Your task to perform on an android device: Open eBay Image 0: 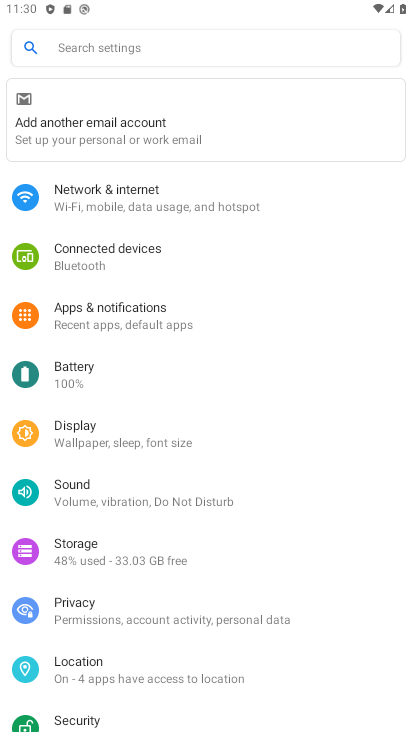
Step 0: press home button
Your task to perform on an android device: Open eBay Image 1: 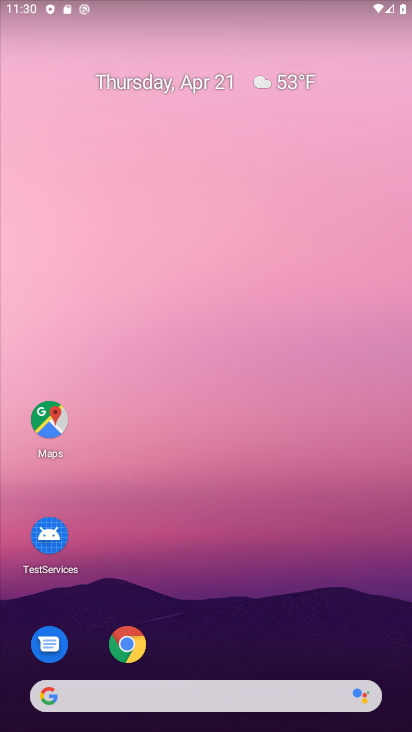
Step 1: click (128, 644)
Your task to perform on an android device: Open eBay Image 2: 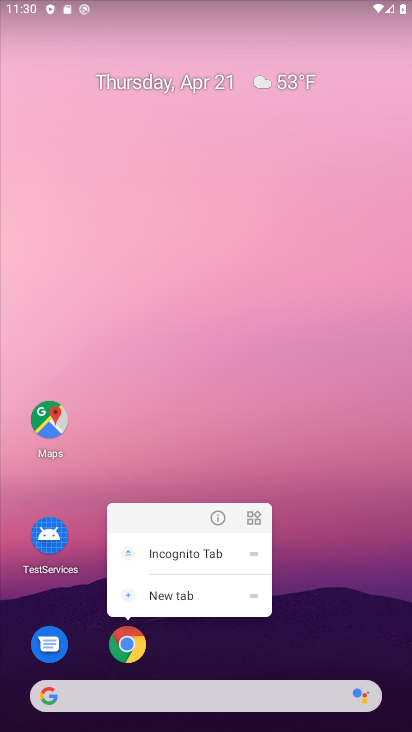
Step 2: click (292, 629)
Your task to perform on an android device: Open eBay Image 3: 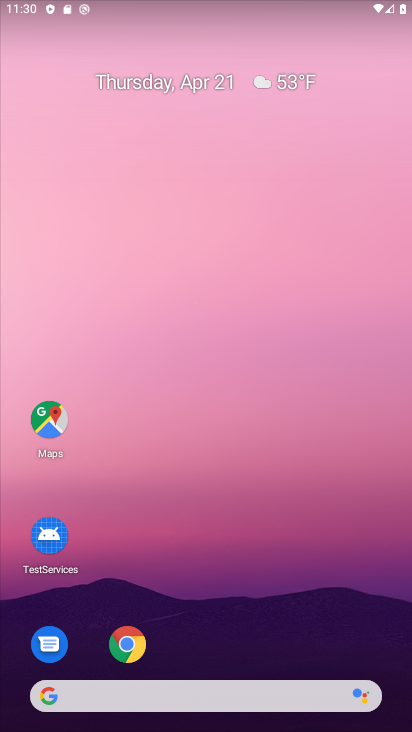
Step 3: drag from (317, 466) to (306, 122)
Your task to perform on an android device: Open eBay Image 4: 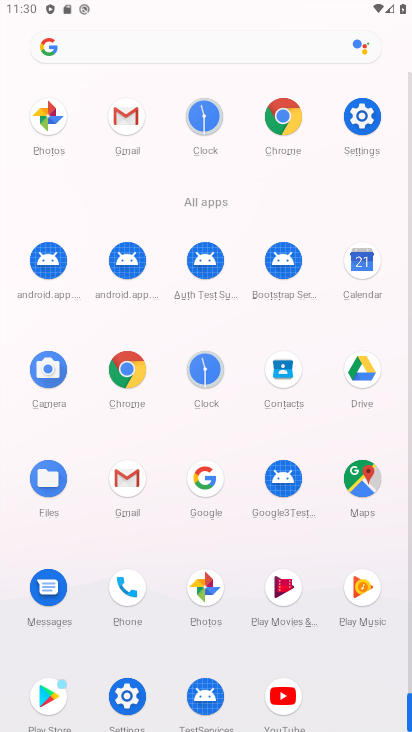
Step 4: click (287, 118)
Your task to perform on an android device: Open eBay Image 5: 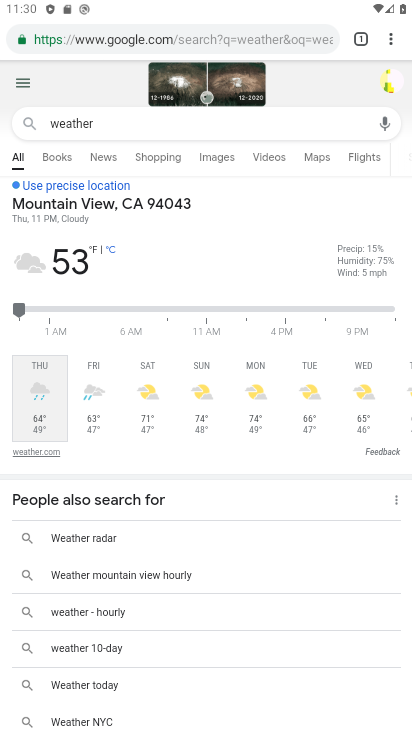
Step 5: click (169, 36)
Your task to perform on an android device: Open eBay Image 6: 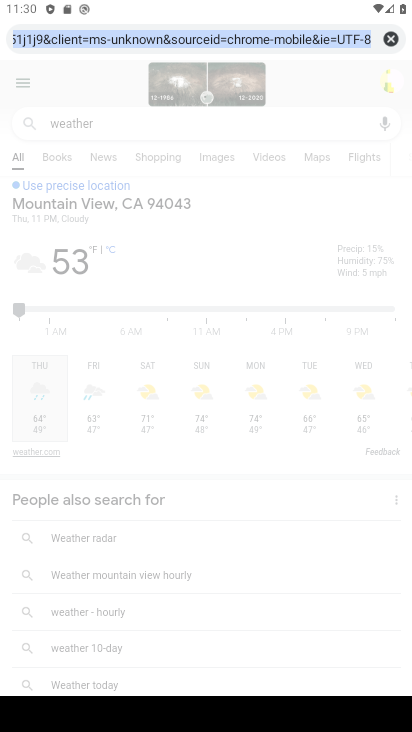
Step 6: type "ebay"
Your task to perform on an android device: Open eBay Image 7: 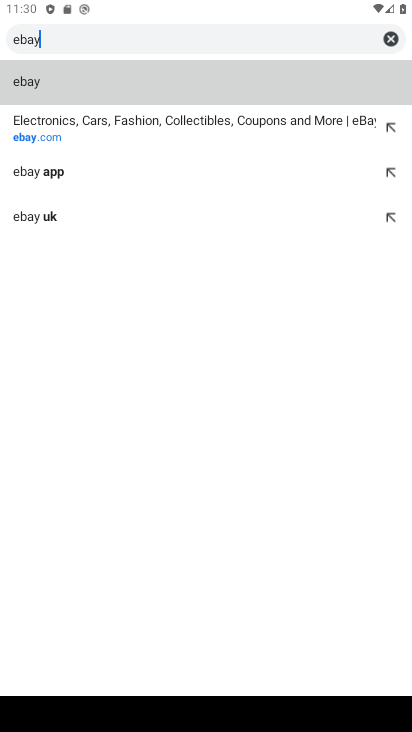
Step 7: click (34, 86)
Your task to perform on an android device: Open eBay Image 8: 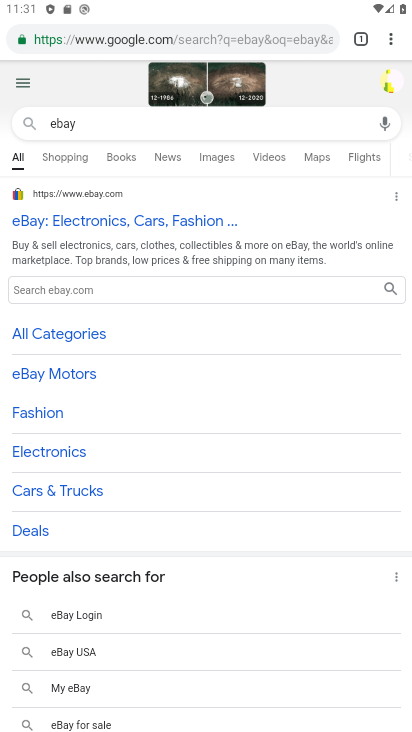
Step 8: click (190, 39)
Your task to perform on an android device: Open eBay Image 9: 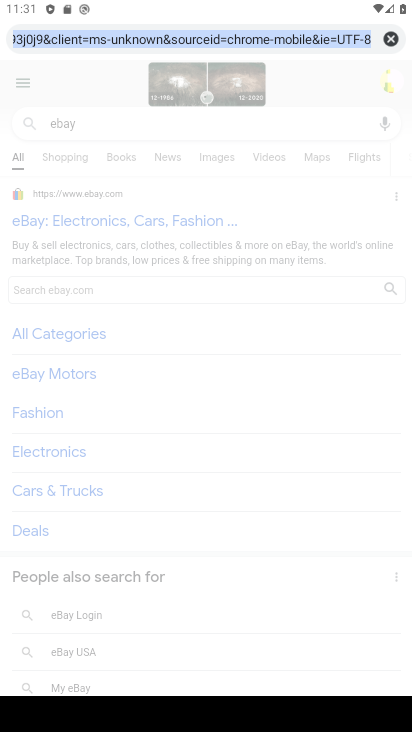
Step 9: type "ebay"
Your task to perform on an android device: Open eBay Image 10: 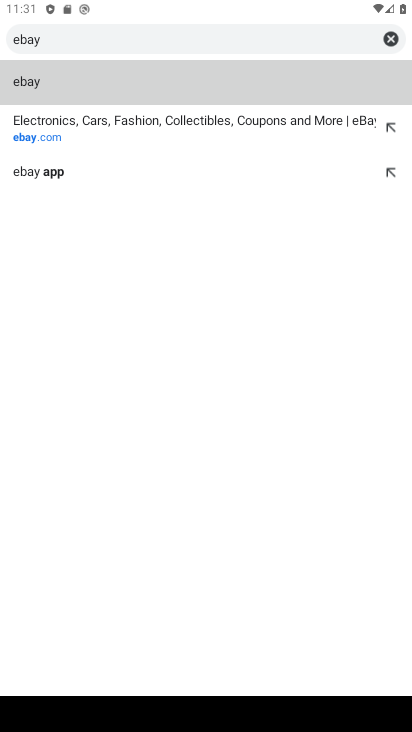
Step 10: click (37, 76)
Your task to perform on an android device: Open eBay Image 11: 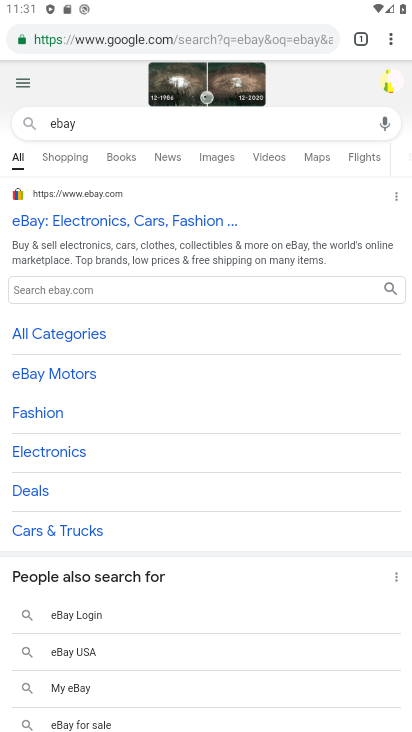
Step 11: click (89, 222)
Your task to perform on an android device: Open eBay Image 12: 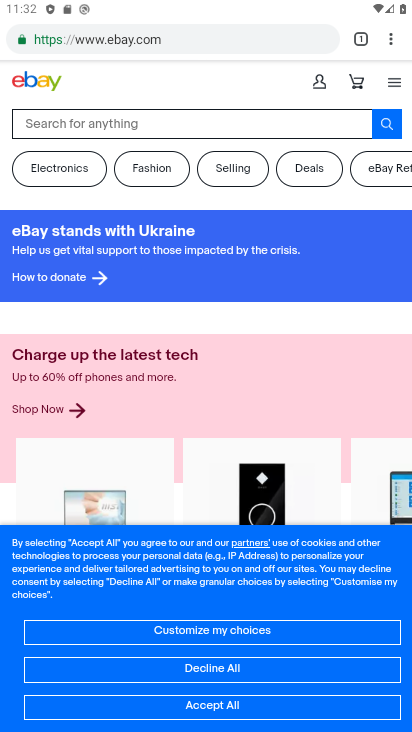
Step 12: task complete